Your task to perform on an android device: open wifi settings Image 0: 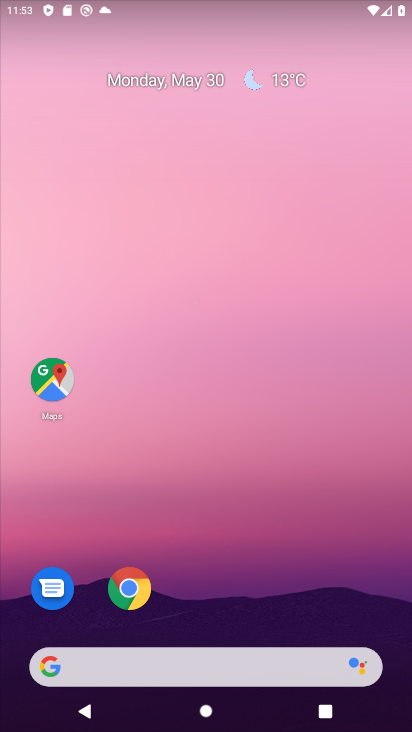
Step 0: drag from (389, 700) to (333, 144)
Your task to perform on an android device: open wifi settings Image 1: 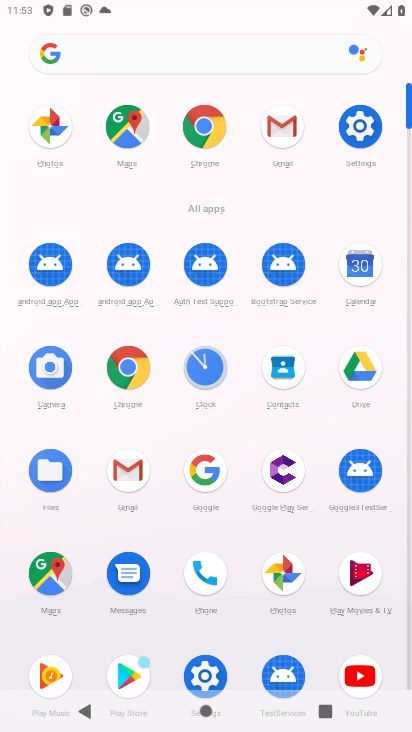
Step 1: click (364, 138)
Your task to perform on an android device: open wifi settings Image 2: 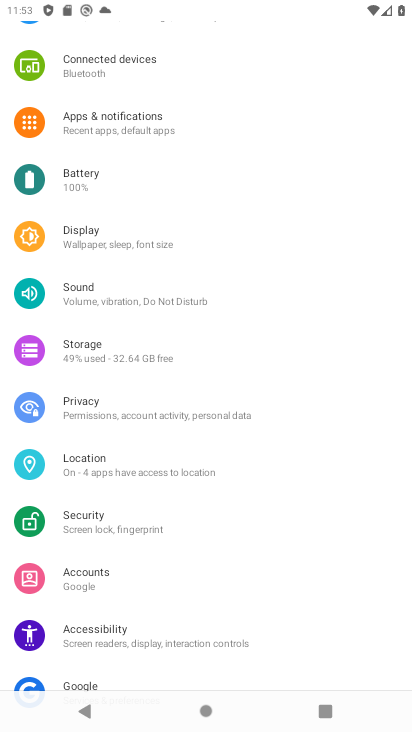
Step 2: drag from (290, 99) to (285, 487)
Your task to perform on an android device: open wifi settings Image 3: 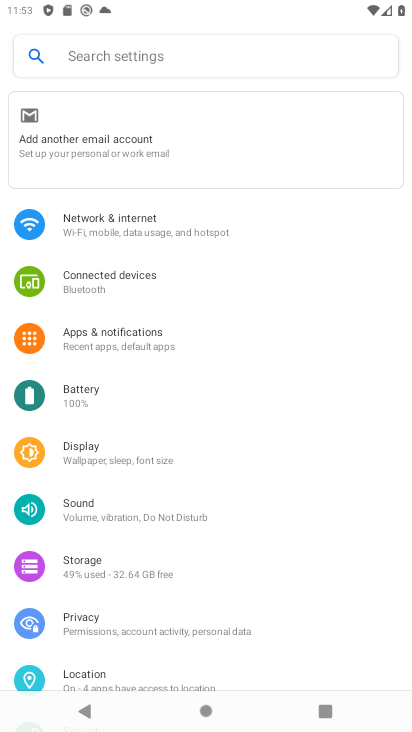
Step 3: click (108, 211)
Your task to perform on an android device: open wifi settings Image 4: 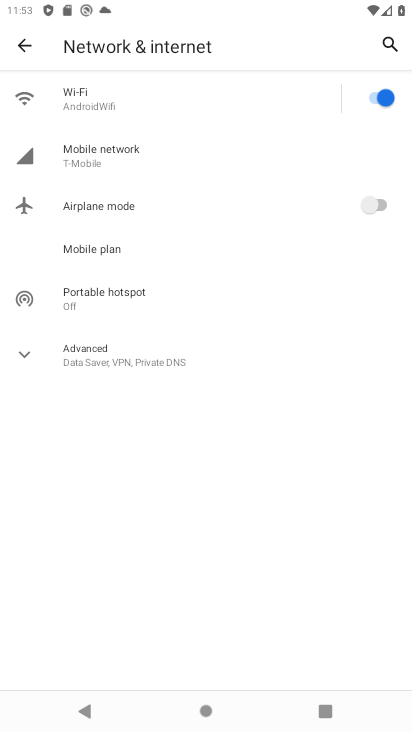
Step 4: click (151, 110)
Your task to perform on an android device: open wifi settings Image 5: 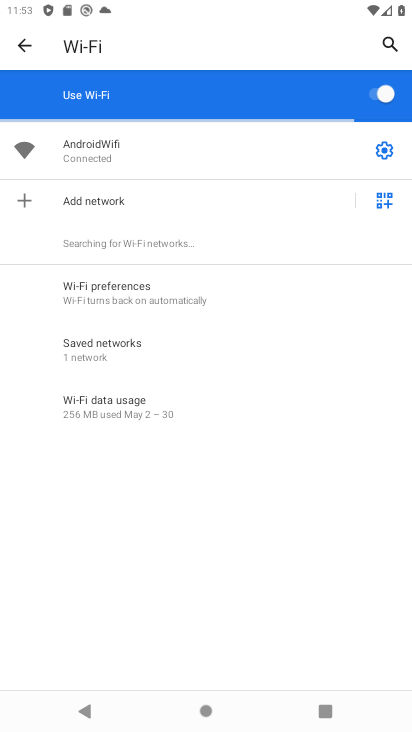
Step 5: click (379, 150)
Your task to perform on an android device: open wifi settings Image 6: 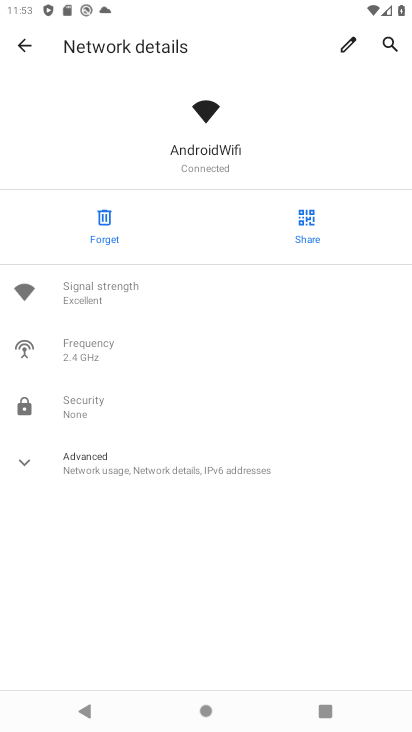
Step 6: task complete